Your task to perform on an android device: empty trash in google photos Image 0: 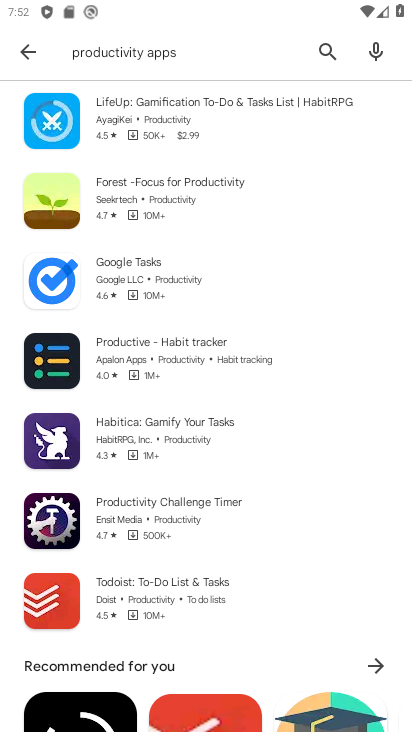
Step 0: press home button
Your task to perform on an android device: empty trash in google photos Image 1: 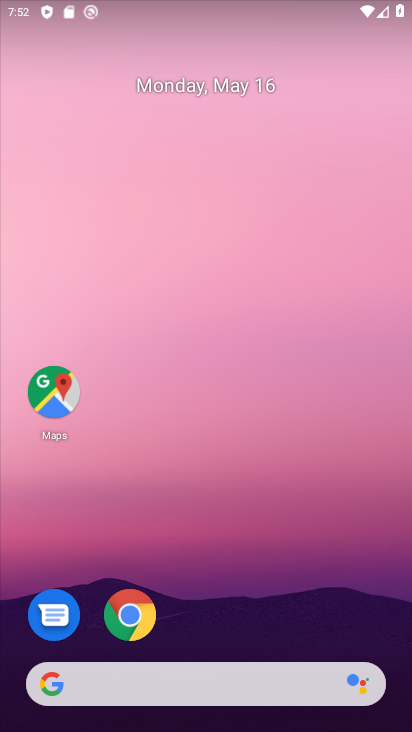
Step 1: drag from (305, 653) to (366, 197)
Your task to perform on an android device: empty trash in google photos Image 2: 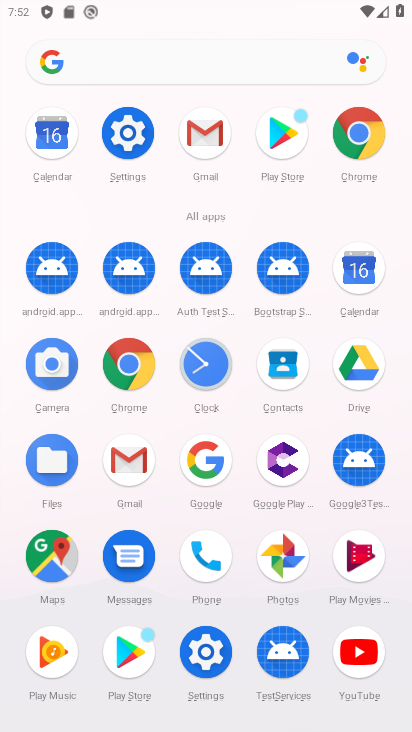
Step 2: click (285, 570)
Your task to perform on an android device: empty trash in google photos Image 3: 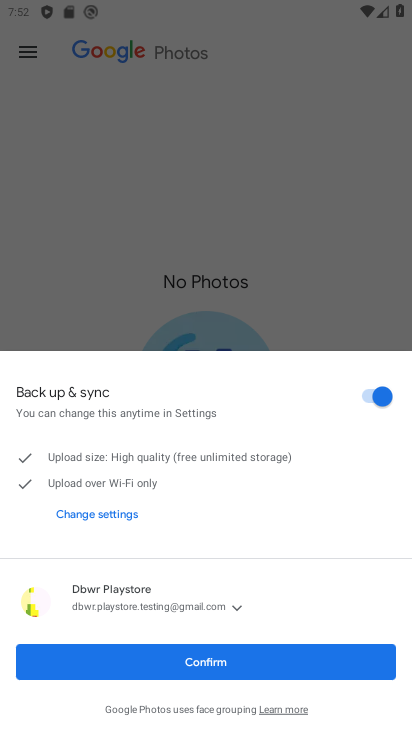
Step 3: click (239, 655)
Your task to perform on an android device: empty trash in google photos Image 4: 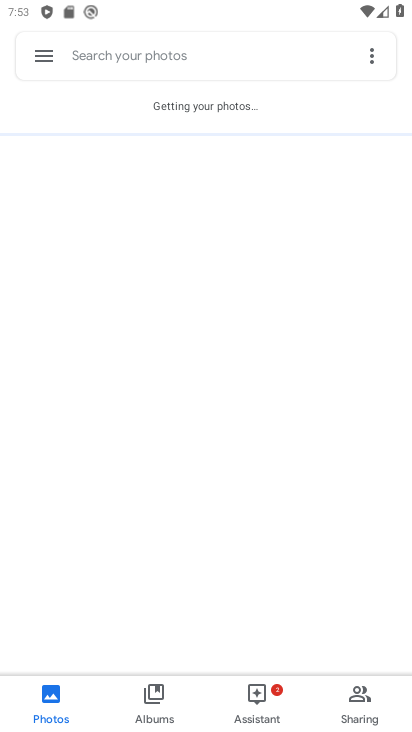
Step 4: click (49, 60)
Your task to perform on an android device: empty trash in google photos Image 5: 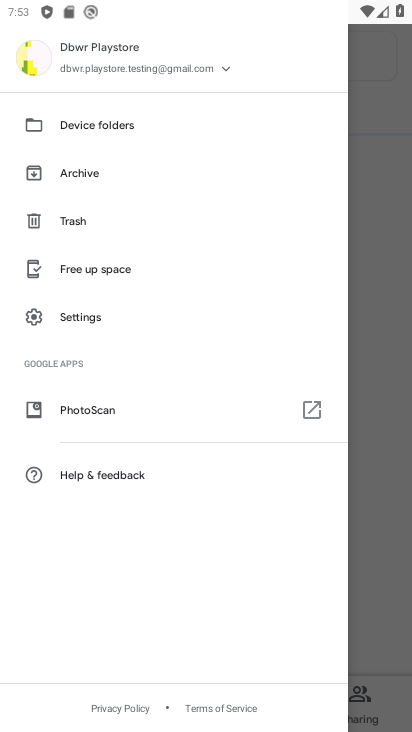
Step 5: click (103, 218)
Your task to perform on an android device: empty trash in google photos Image 6: 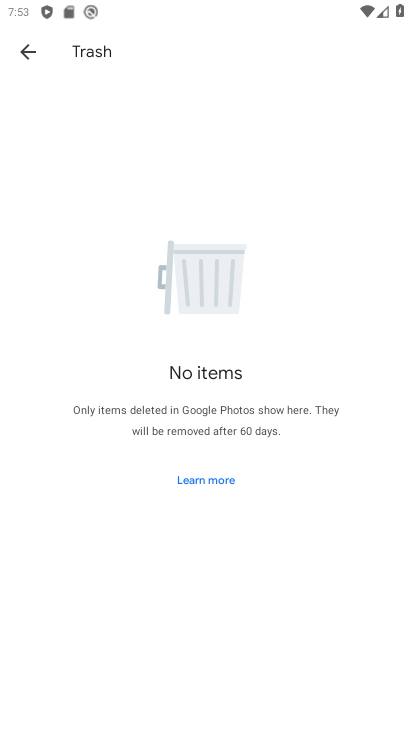
Step 6: task complete